Your task to perform on an android device: Open Yahoo.com Image 0: 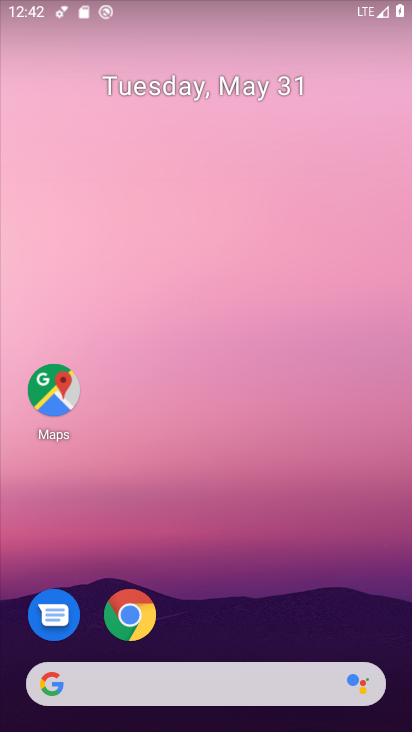
Step 0: click (136, 618)
Your task to perform on an android device: Open Yahoo.com Image 1: 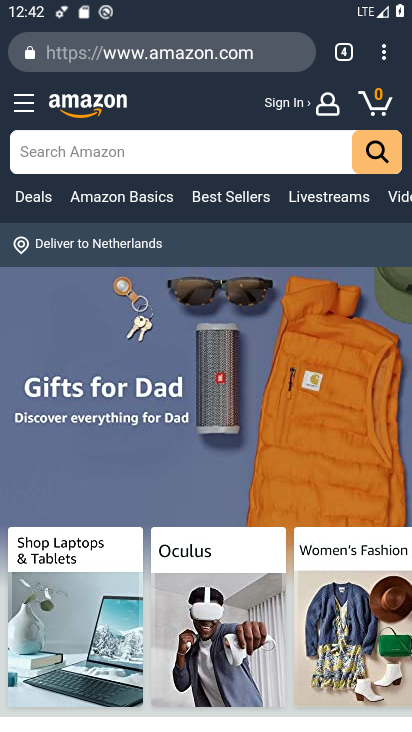
Step 1: click (198, 49)
Your task to perform on an android device: Open Yahoo.com Image 2: 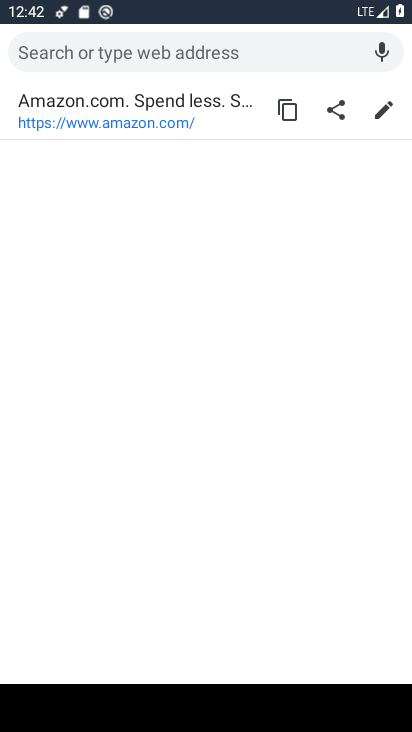
Step 2: type "Yahoo.com"
Your task to perform on an android device: Open Yahoo.com Image 3: 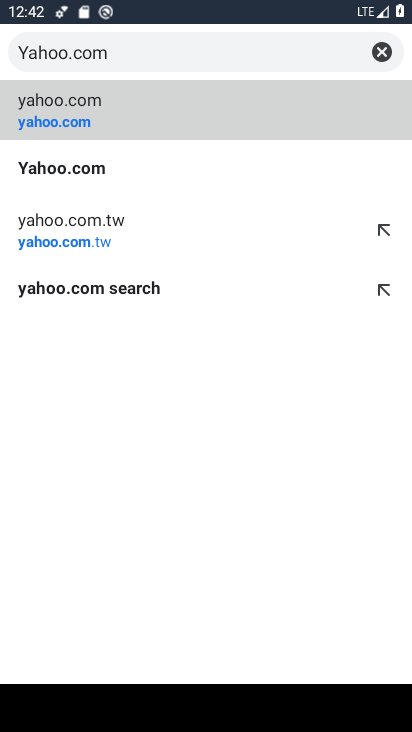
Step 3: click (123, 190)
Your task to perform on an android device: Open Yahoo.com Image 4: 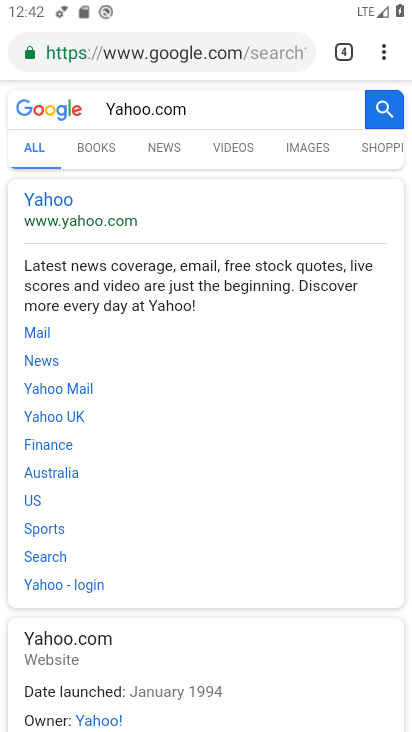
Step 4: task complete